Your task to perform on an android device: Open Google Chrome and open the bookmarks view Image 0: 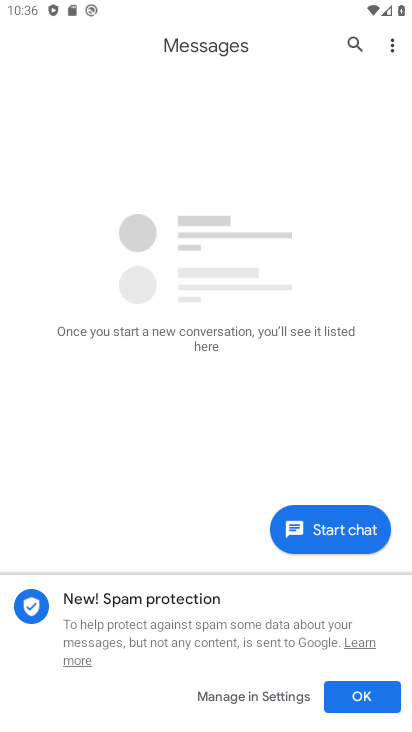
Step 0: press home button
Your task to perform on an android device: Open Google Chrome and open the bookmarks view Image 1: 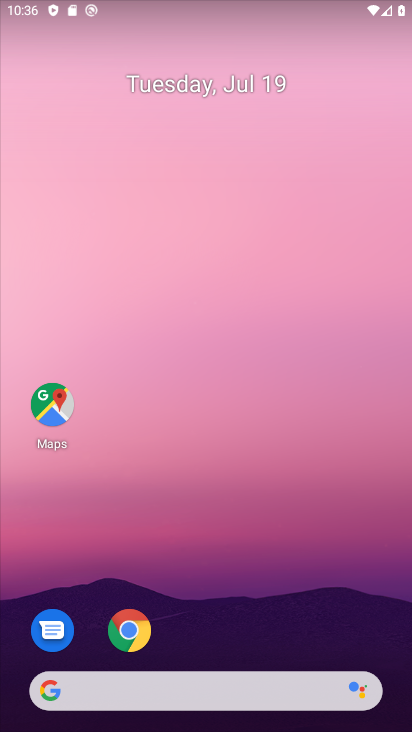
Step 1: drag from (205, 646) to (208, 184)
Your task to perform on an android device: Open Google Chrome and open the bookmarks view Image 2: 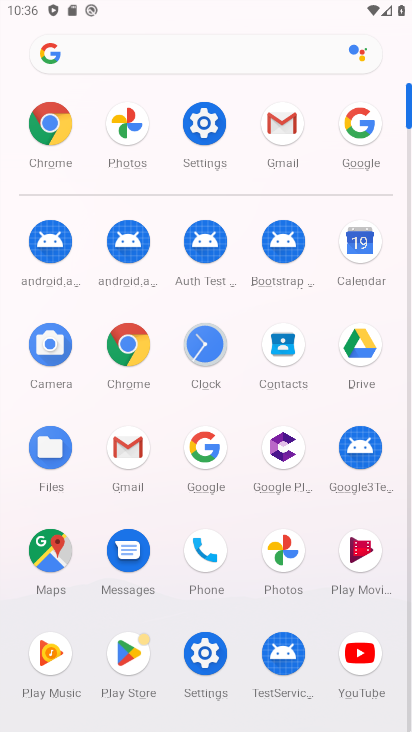
Step 2: click (52, 120)
Your task to perform on an android device: Open Google Chrome and open the bookmarks view Image 3: 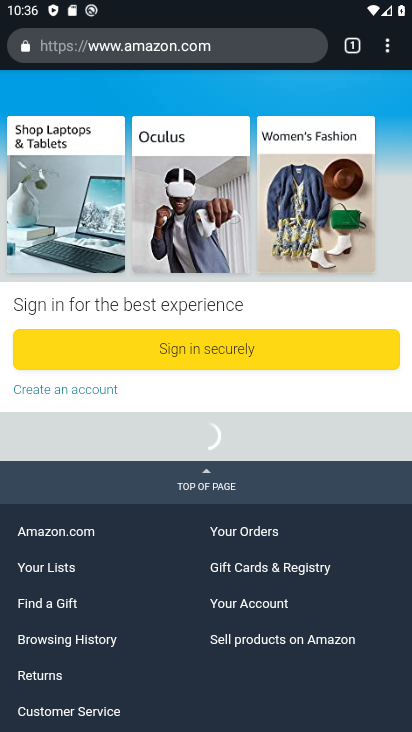
Step 3: click (389, 44)
Your task to perform on an android device: Open Google Chrome and open the bookmarks view Image 4: 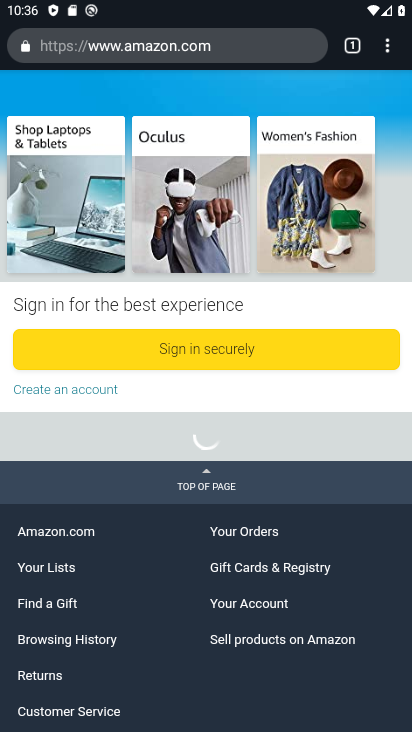
Step 4: click (385, 48)
Your task to perform on an android device: Open Google Chrome and open the bookmarks view Image 5: 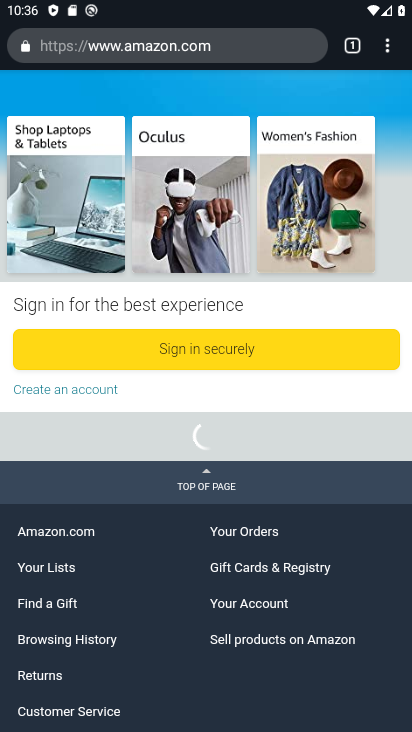
Step 5: click (380, 51)
Your task to perform on an android device: Open Google Chrome and open the bookmarks view Image 6: 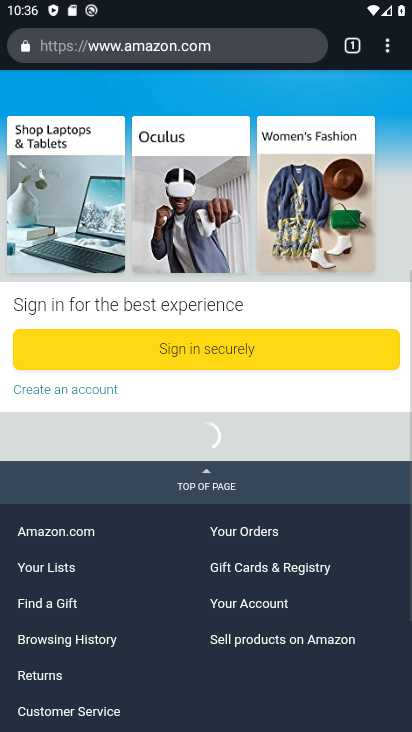
Step 6: click (383, 48)
Your task to perform on an android device: Open Google Chrome and open the bookmarks view Image 7: 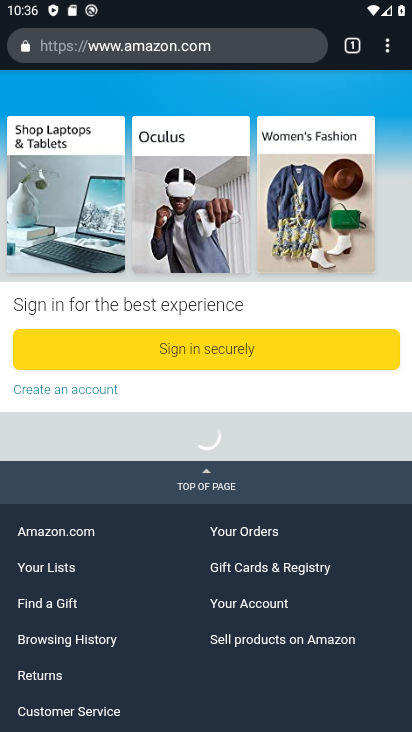
Step 7: click (391, 44)
Your task to perform on an android device: Open Google Chrome and open the bookmarks view Image 8: 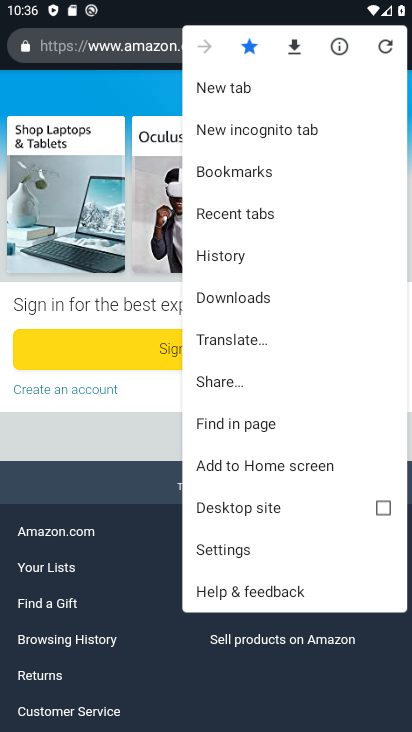
Step 8: click (212, 171)
Your task to perform on an android device: Open Google Chrome and open the bookmarks view Image 9: 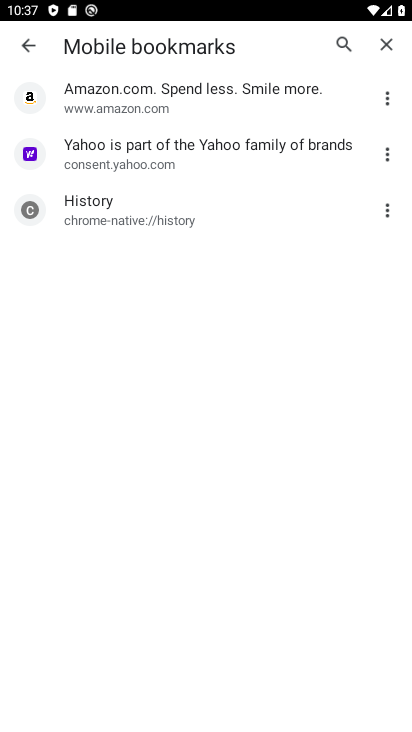
Step 9: task complete